Your task to perform on an android device: see sites visited before in the chrome app Image 0: 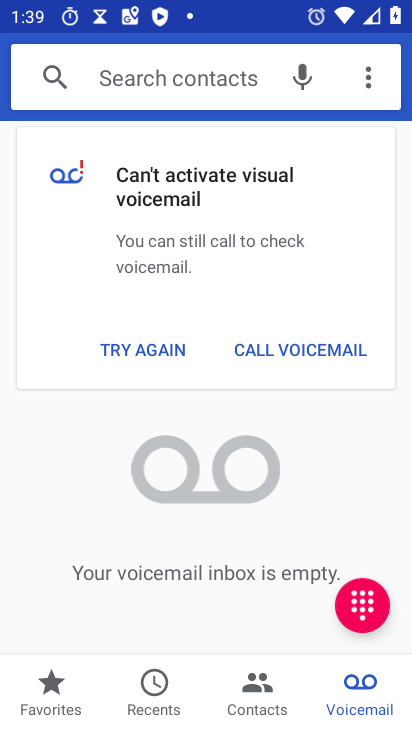
Step 0: press home button
Your task to perform on an android device: see sites visited before in the chrome app Image 1: 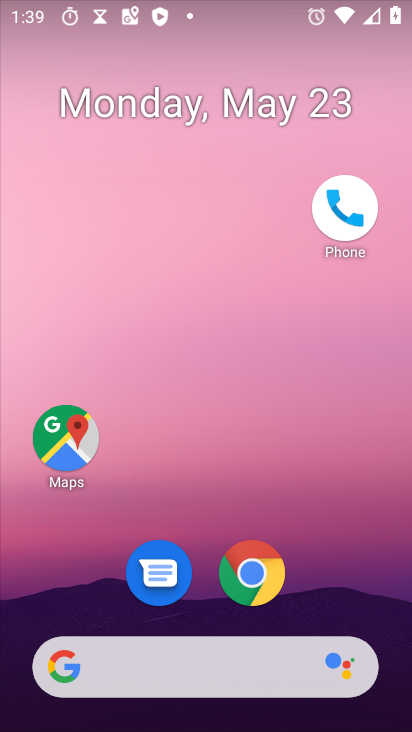
Step 1: click (255, 582)
Your task to perform on an android device: see sites visited before in the chrome app Image 2: 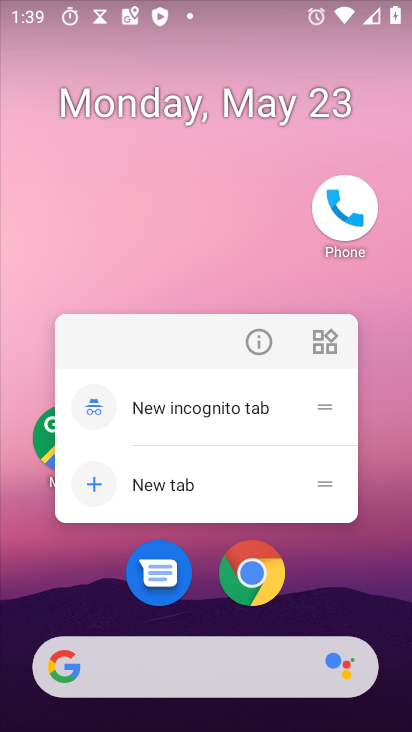
Step 2: click (266, 585)
Your task to perform on an android device: see sites visited before in the chrome app Image 3: 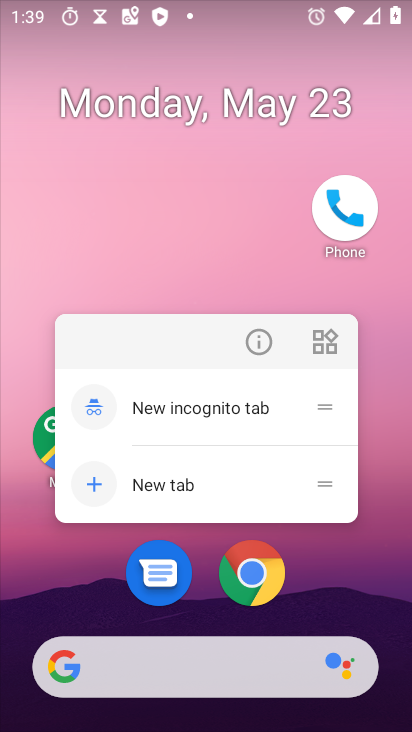
Step 3: click (256, 587)
Your task to perform on an android device: see sites visited before in the chrome app Image 4: 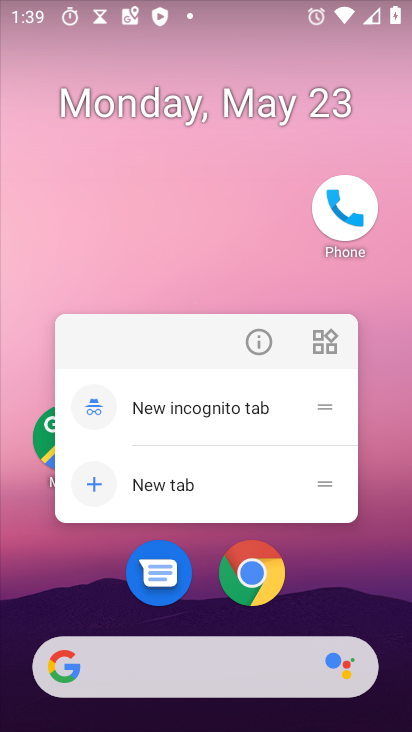
Step 4: click (249, 587)
Your task to perform on an android device: see sites visited before in the chrome app Image 5: 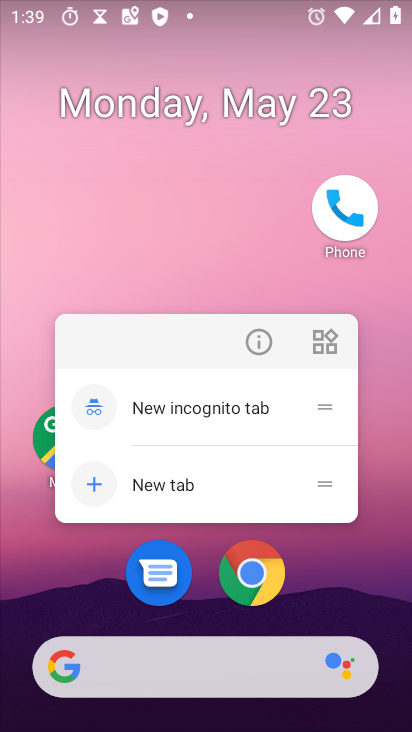
Step 5: click (260, 574)
Your task to perform on an android device: see sites visited before in the chrome app Image 6: 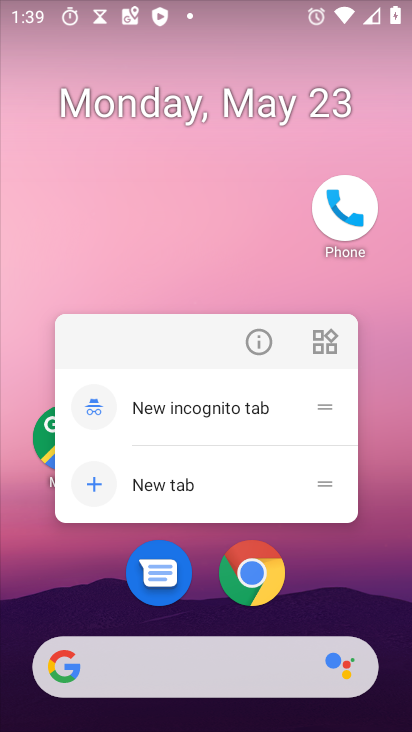
Step 6: click (249, 593)
Your task to perform on an android device: see sites visited before in the chrome app Image 7: 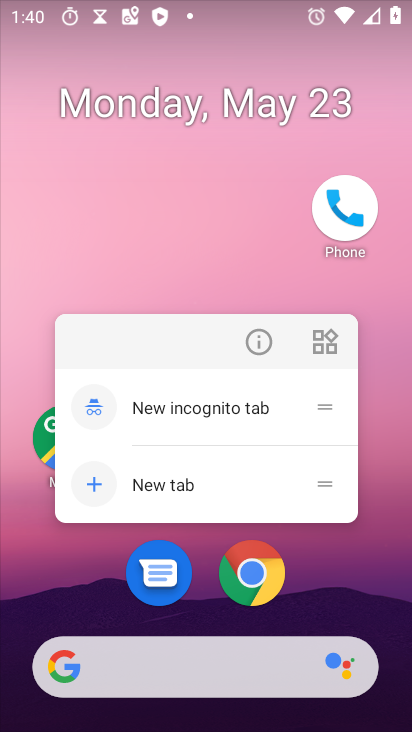
Step 7: click (242, 572)
Your task to perform on an android device: see sites visited before in the chrome app Image 8: 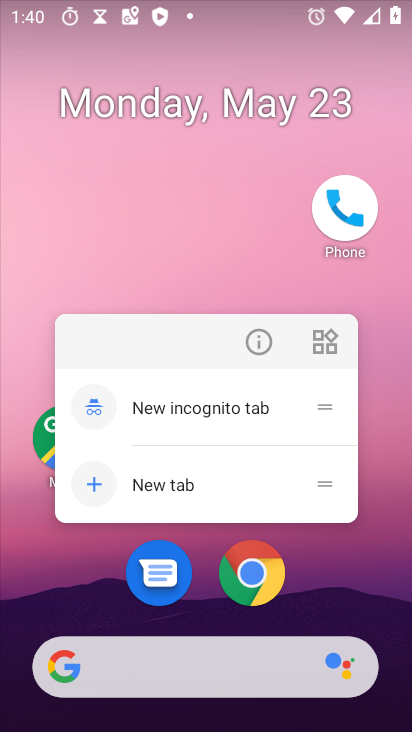
Step 8: click (255, 587)
Your task to perform on an android device: see sites visited before in the chrome app Image 9: 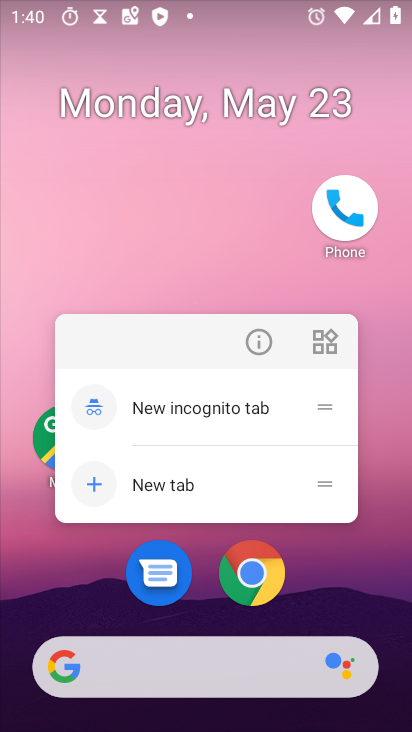
Step 9: click (281, 574)
Your task to perform on an android device: see sites visited before in the chrome app Image 10: 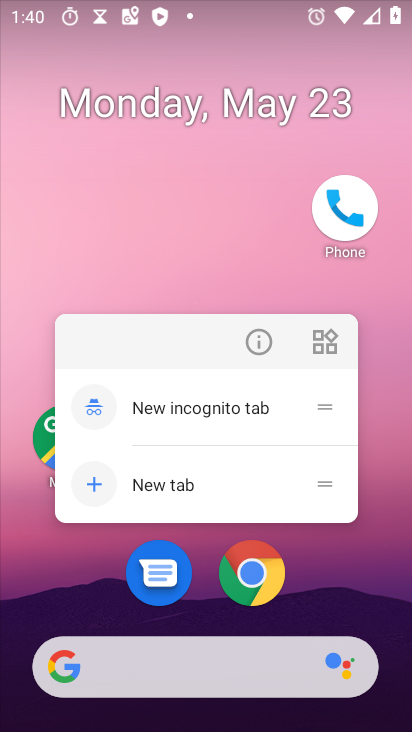
Step 10: click (237, 584)
Your task to perform on an android device: see sites visited before in the chrome app Image 11: 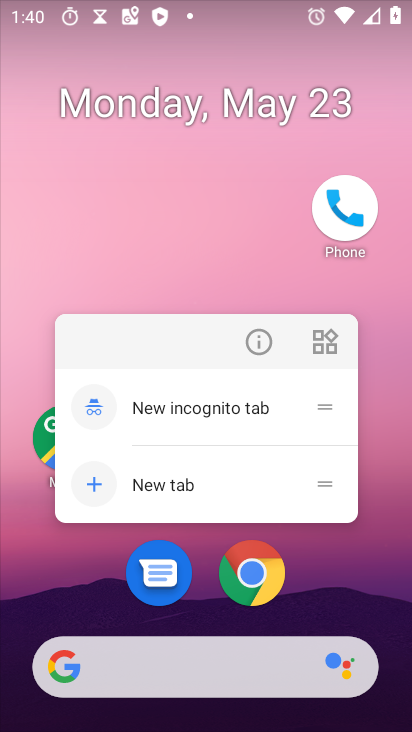
Step 11: drag from (186, 664) to (315, 88)
Your task to perform on an android device: see sites visited before in the chrome app Image 12: 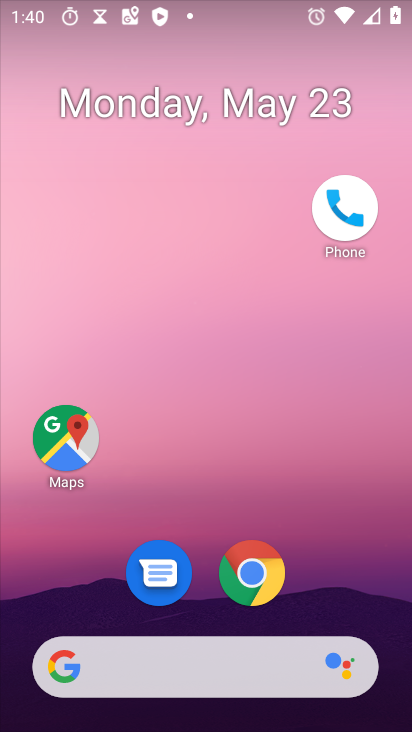
Step 12: drag from (206, 657) to (303, 46)
Your task to perform on an android device: see sites visited before in the chrome app Image 13: 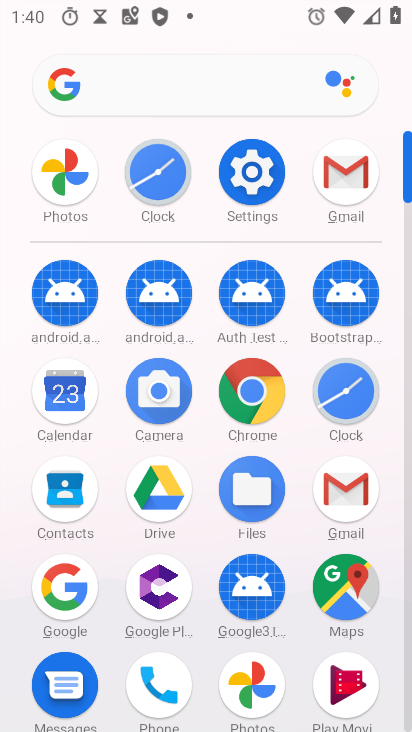
Step 13: click (257, 415)
Your task to perform on an android device: see sites visited before in the chrome app Image 14: 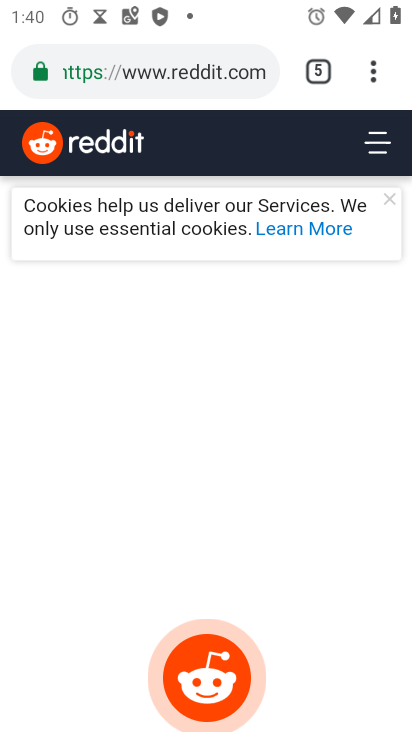
Step 14: task complete